Your task to perform on an android device: Clear the shopping cart on ebay.com. Add "logitech g910" to the cart on ebay.com Image 0: 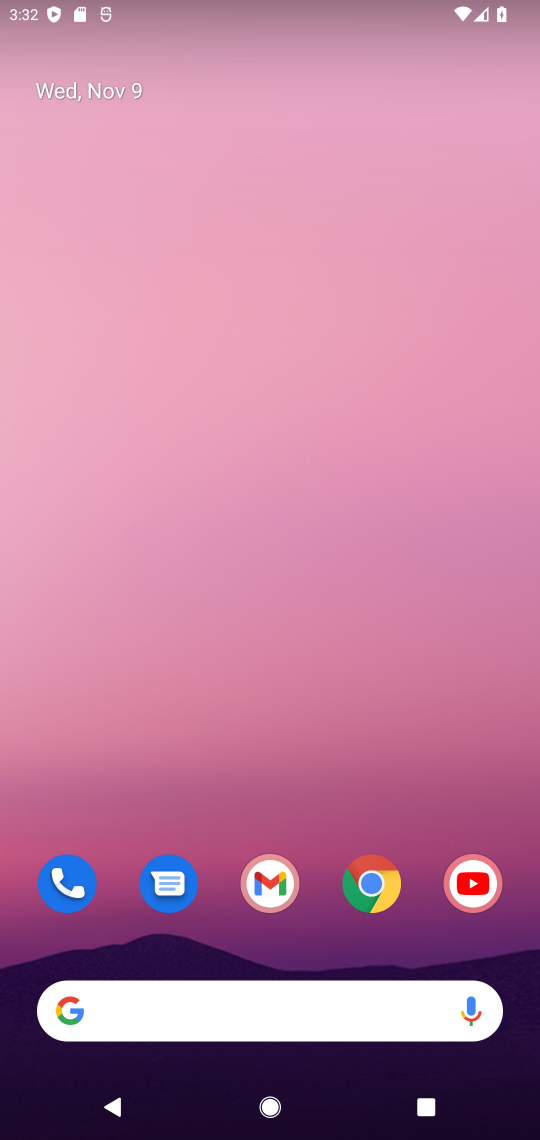
Step 0: click (370, 862)
Your task to perform on an android device: Clear the shopping cart on ebay.com. Add "logitech g910" to the cart on ebay.com Image 1: 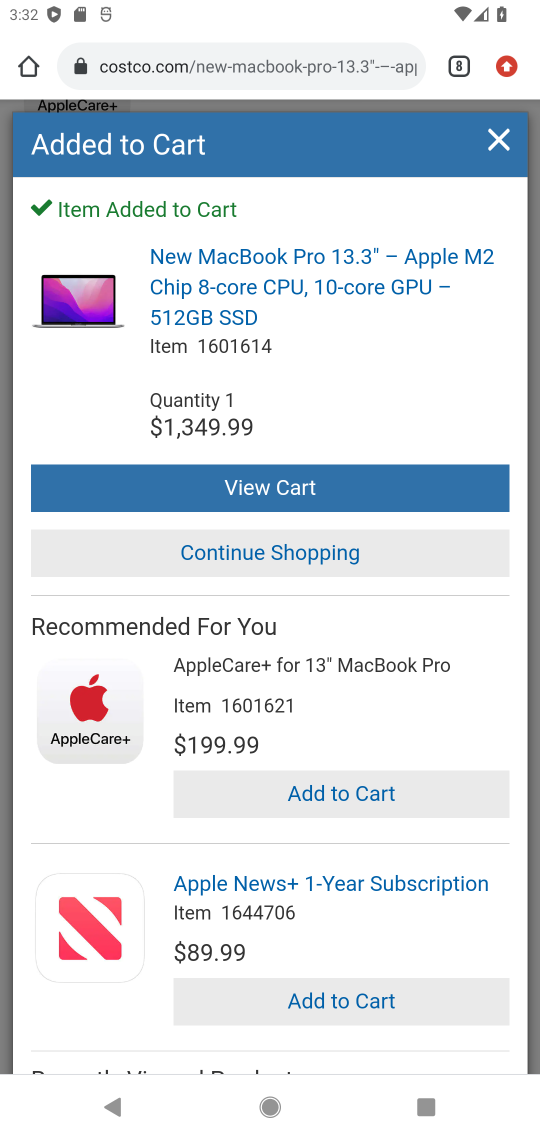
Step 1: click (459, 70)
Your task to perform on an android device: Clear the shopping cart on ebay.com. Add "logitech g910" to the cart on ebay.com Image 2: 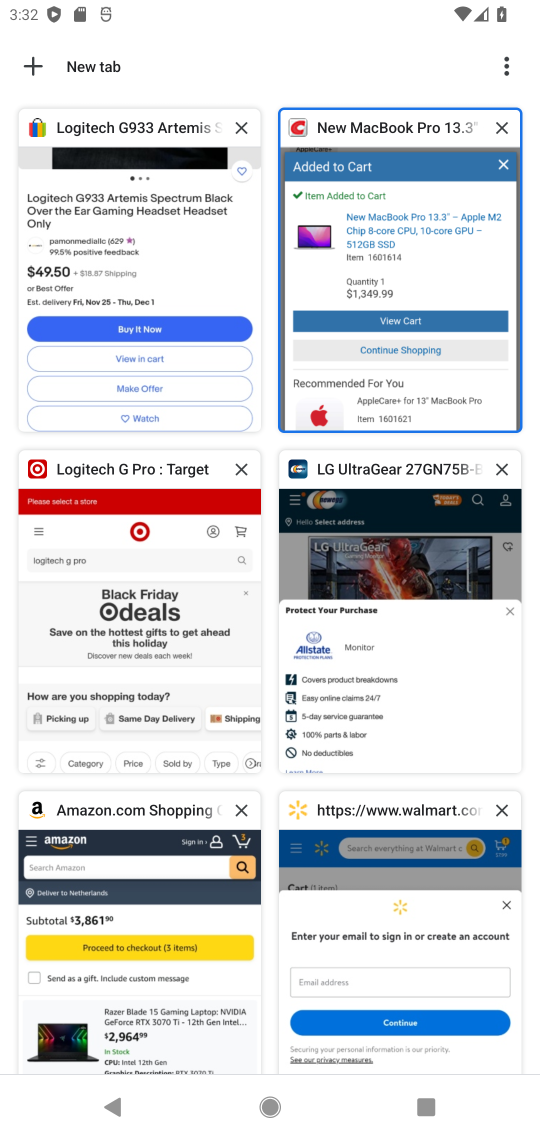
Step 2: click (156, 266)
Your task to perform on an android device: Clear the shopping cart on ebay.com. Add "logitech g910" to the cart on ebay.com Image 3: 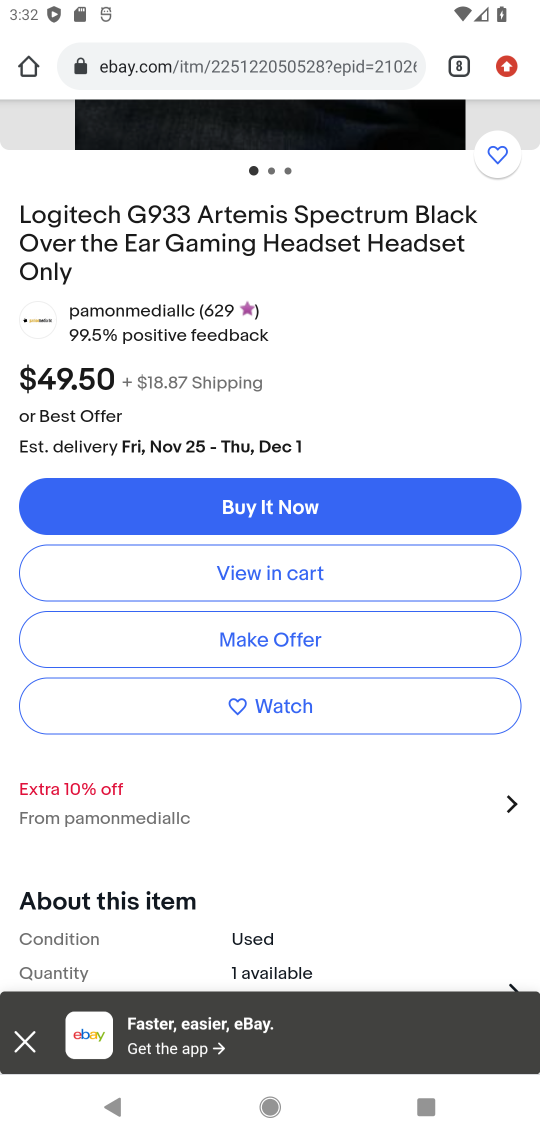
Step 3: drag from (277, 263) to (251, 1040)
Your task to perform on an android device: Clear the shopping cart on ebay.com. Add "logitech g910" to the cart on ebay.com Image 4: 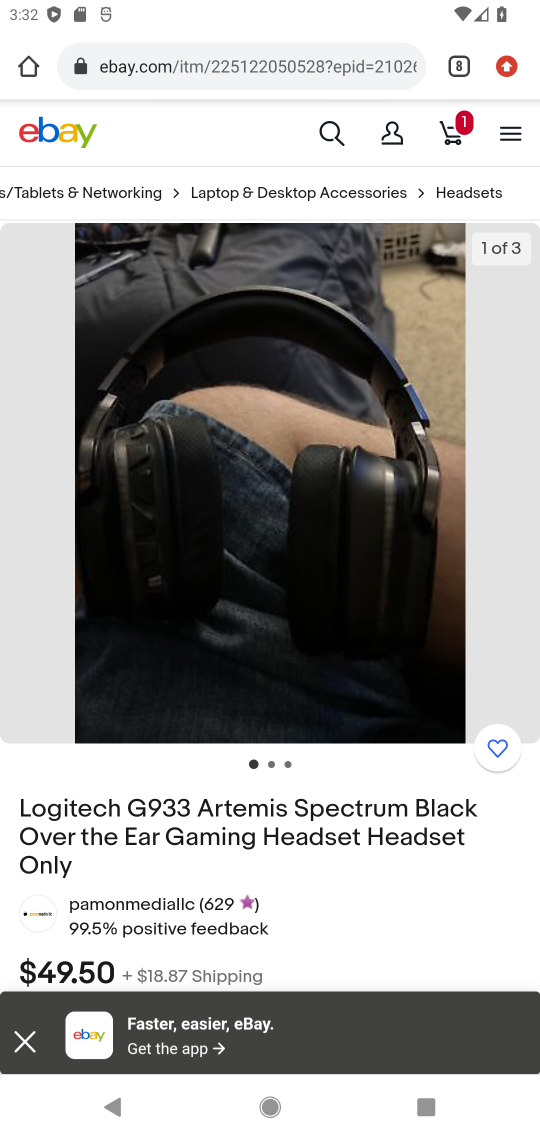
Step 4: click (333, 136)
Your task to perform on an android device: Clear the shopping cart on ebay.com. Add "logitech g910" to the cart on ebay.com Image 5: 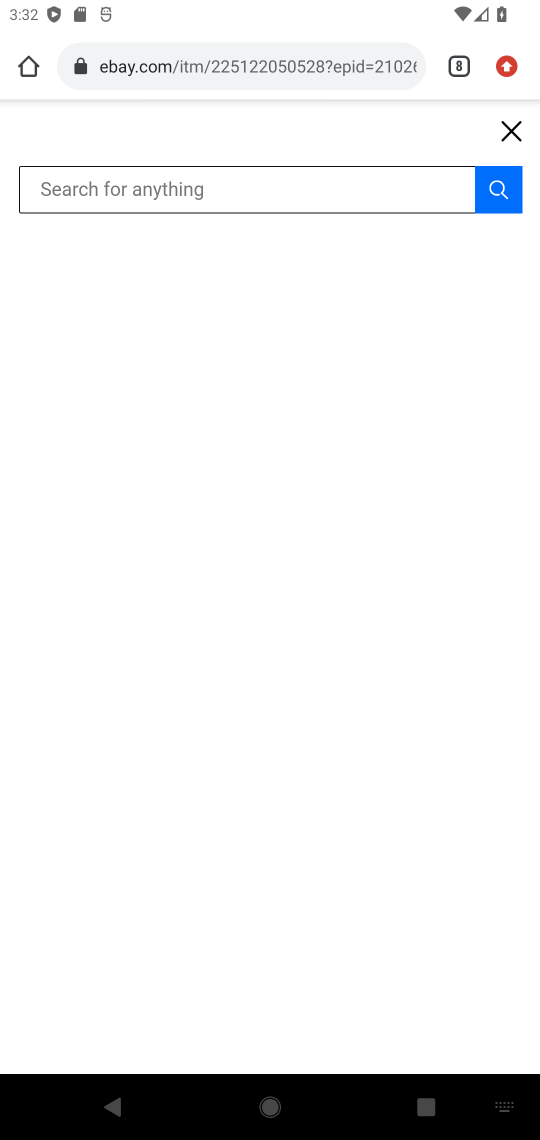
Step 5: type "logitech g910"
Your task to perform on an android device: Clear the shopping cart on ebay.com. Add "logitech g910" to the cart on ebay.com Image 6: 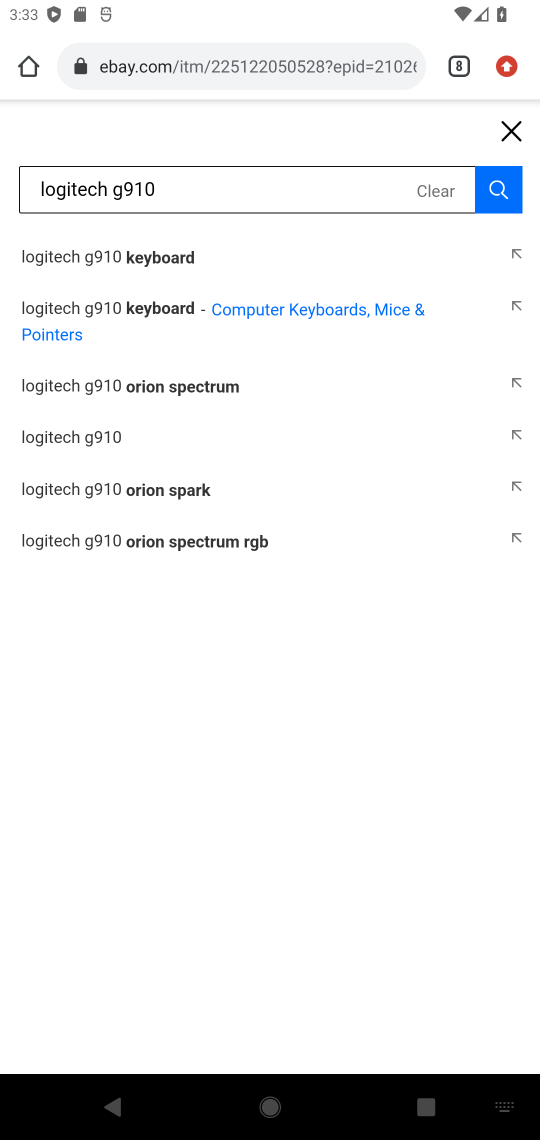
Step 6: click (149, 310)
Your task to perform on an android device: Clear the shopping cart on ebay.com. Add "logitech g910" to the cart on ebay.com Image 7: 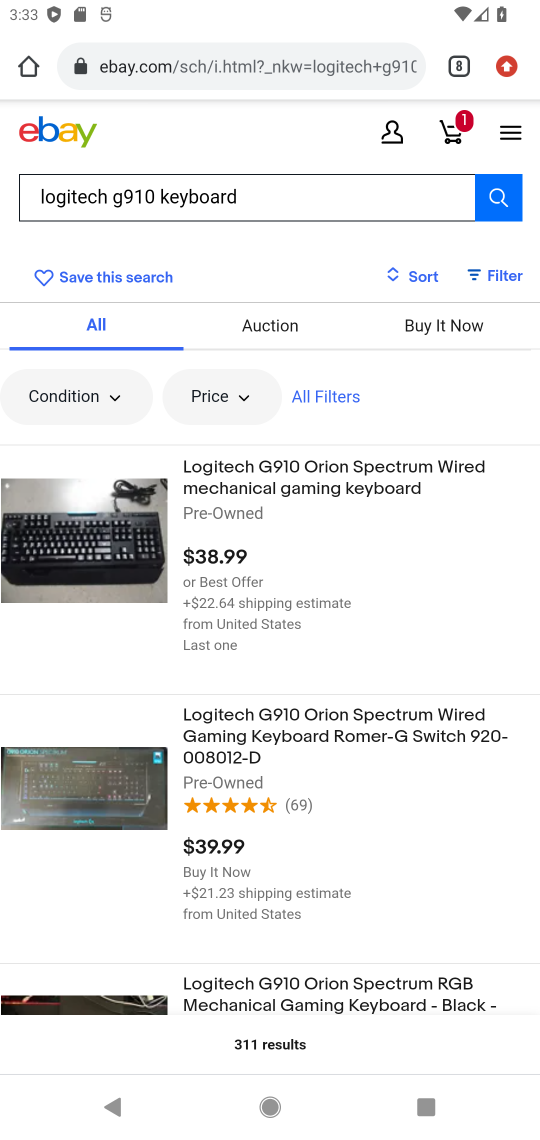
Step 7: click (282, 476)
Your task to perform on an android device: Clear the shopping cart on ebay.com. Add "logitech g910" to the cart on ebay.com Image 8: 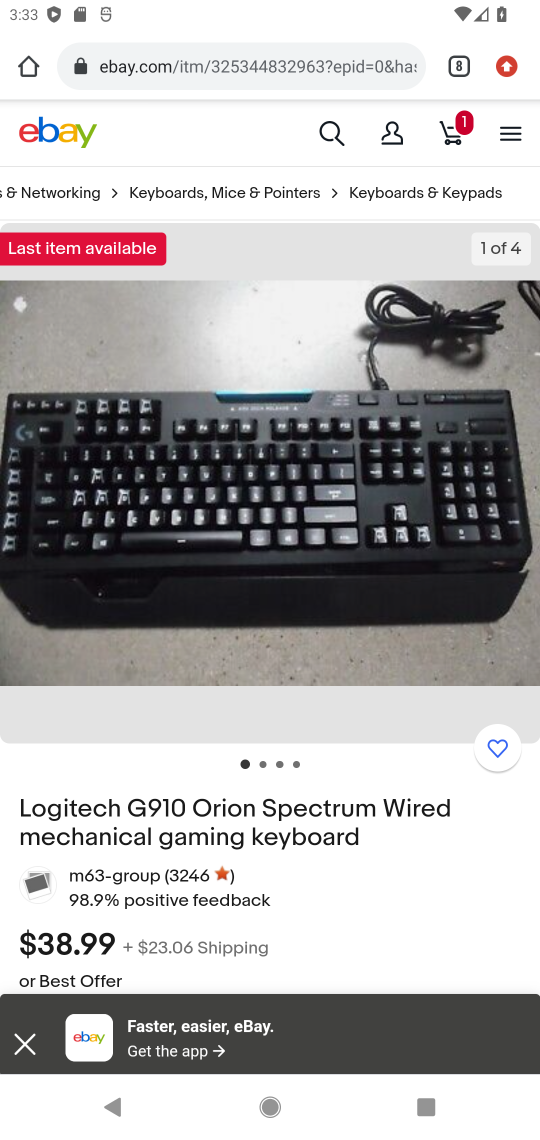
Step 8: drag from (376, 976) to (426, 463)
Your task to perform on an android device: Clear the shopping cart on ebay.com. Add "logitech g910" to the cart on ebay.com Image 9: 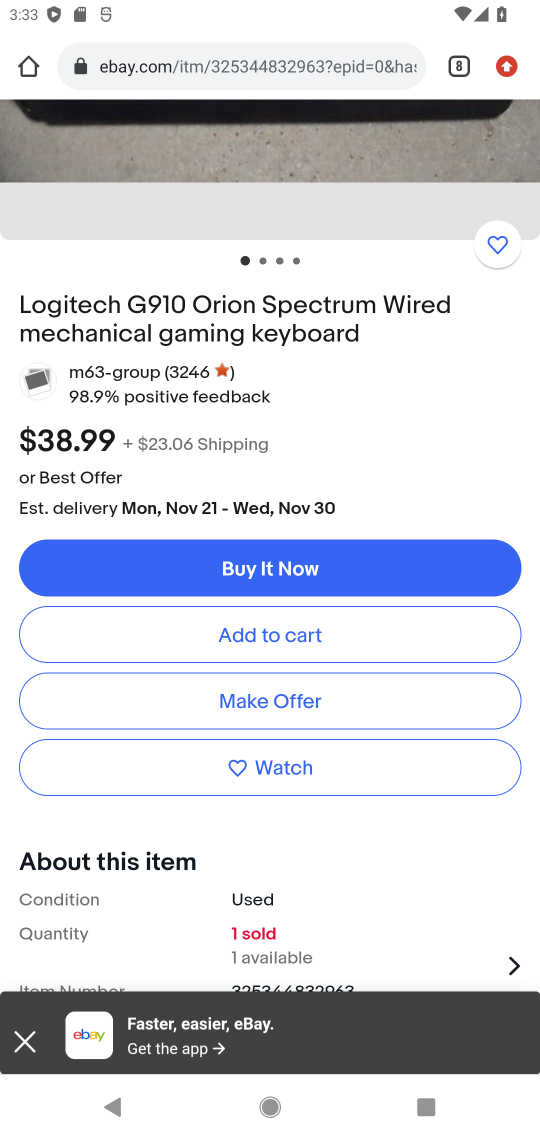
Step 9: click (308, 631)
Your task to perform on an android device: Clear the shopping cart on ebay.com. Add "logitech g910" to the cart on ebay.com Image 10: 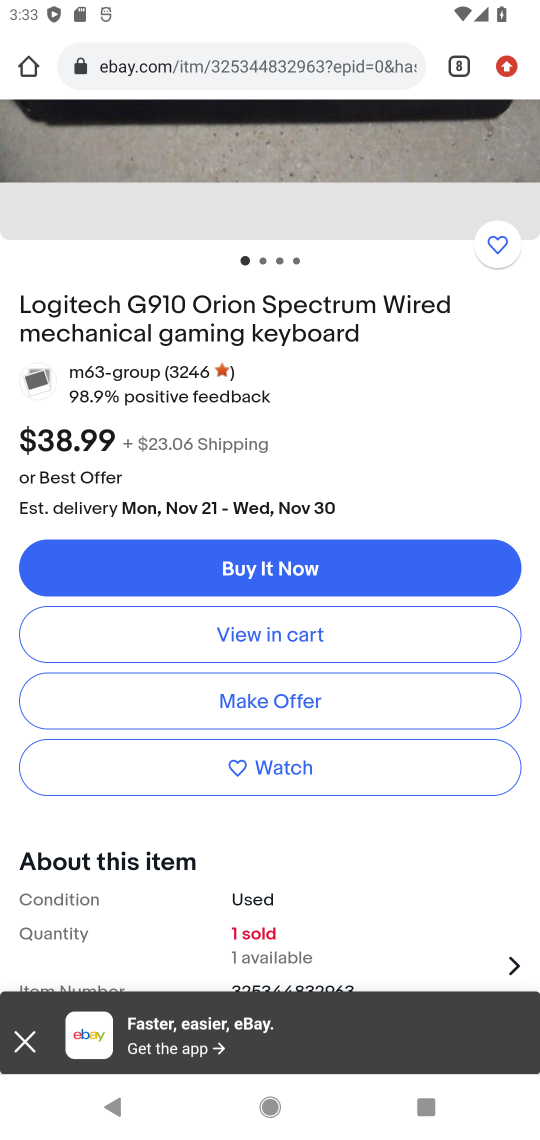
Step 10: task complete